Your task to perform on an android device: all mails in gmail Image 0: 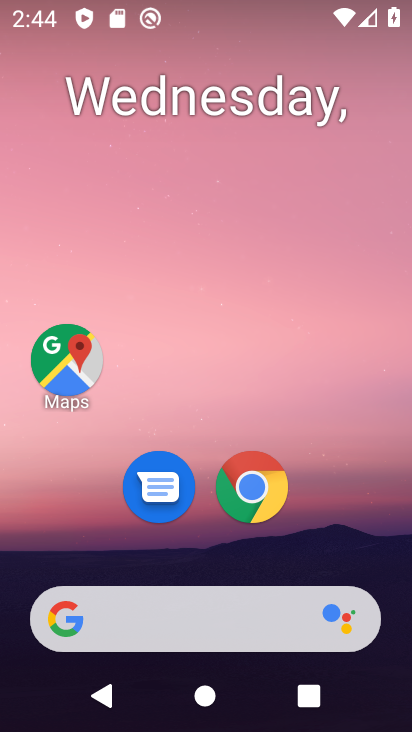
Step 0: drag from (170, 431) to (169, 237)
Your task to perform on an android device: all mails in gmail Image 1: 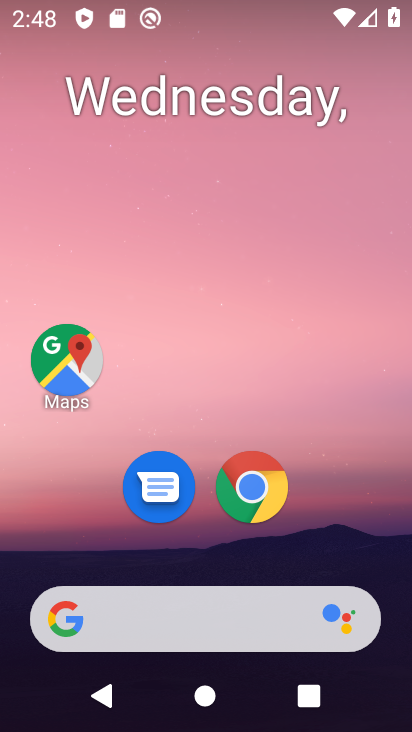
Step 1: drag from (217, 601) to (222, 162)
Your task to perform on an android device: all mails in gmail Image 2: 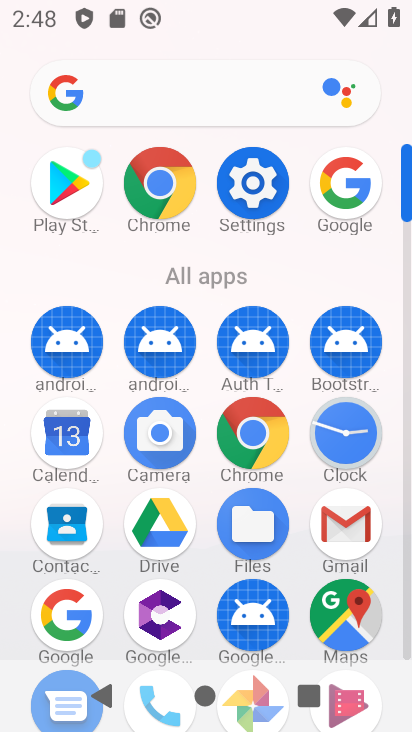
Step 2: drag from (205, 581) to (217, 162)
Your task to perform on an android device: all mails in gmail Image 3: 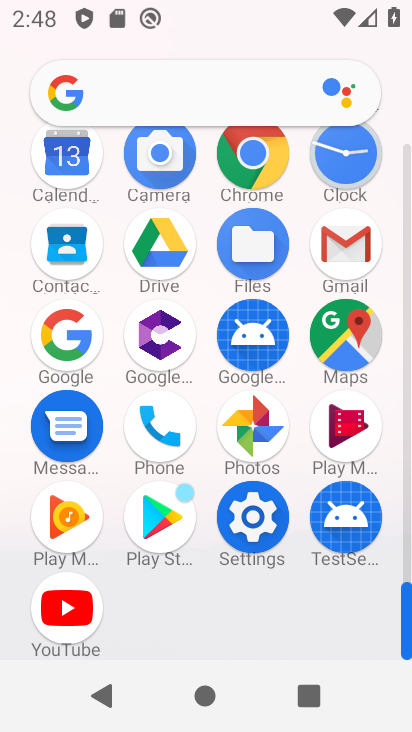
Step 3: click (345, 261)
Your task to perform on an android device: all mails in gmail Image 4: 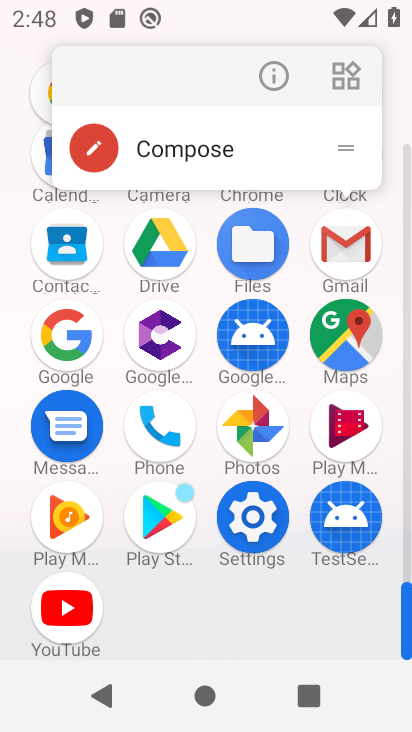
Step 4: click (346, 260)
Your task to perform on an android device: all mails in gmail Image 5: 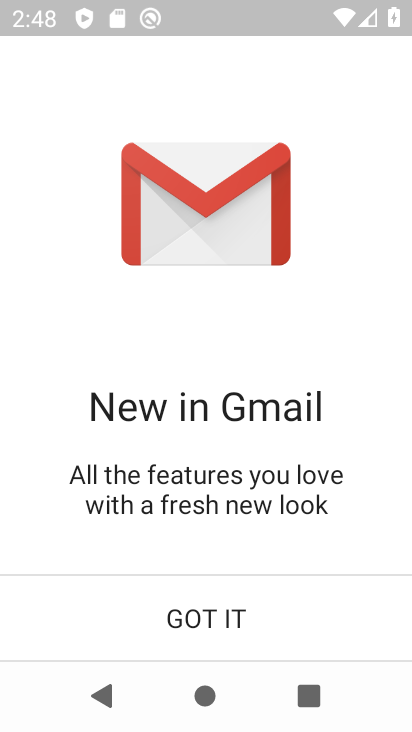
Step 5: click (215, 599)
Your task to perform on an android device: all mails in gmail Image 6: 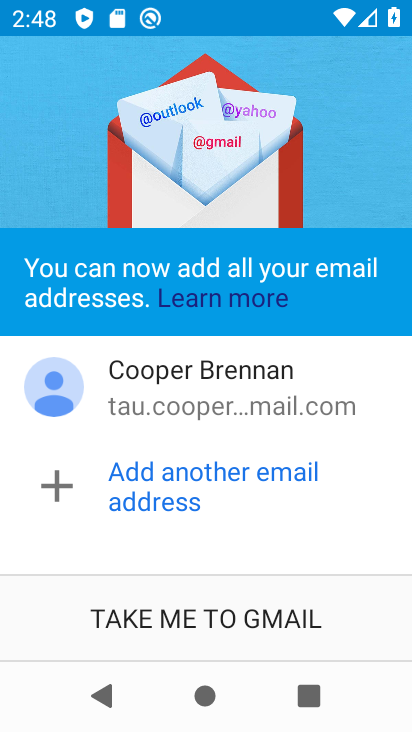
Step 6: click (200, 627)
Your task to perform on an android device: all mails in gmail Image 7: 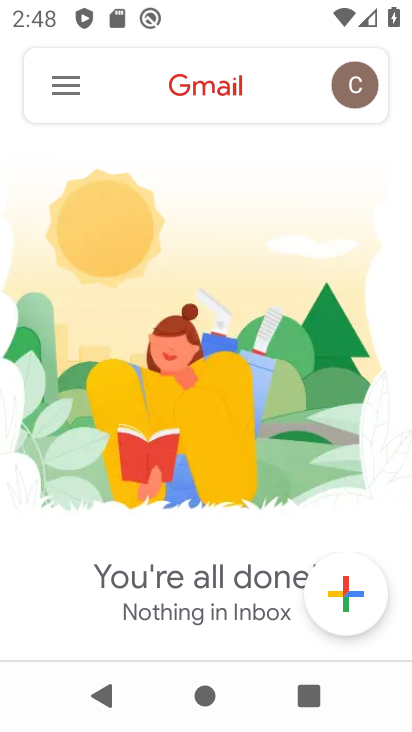
Step 7: click (71, 89)
Your task to perform on an android device: all mails in gmail Image 8: 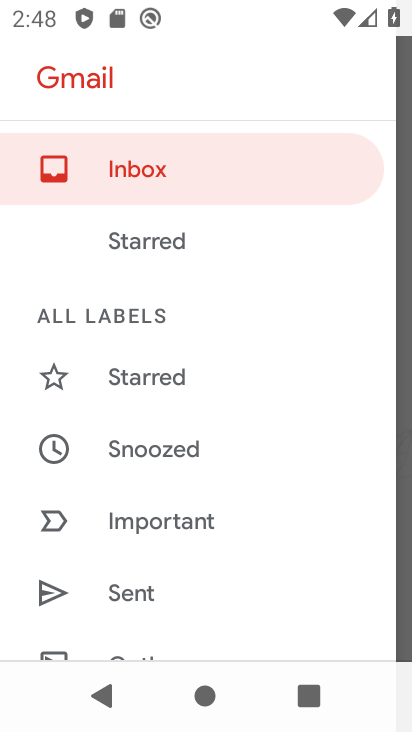
Step 8: drag from (174, 584) to (192, 174)
Your task to perform on an android device: all mails in gmail Image 9: 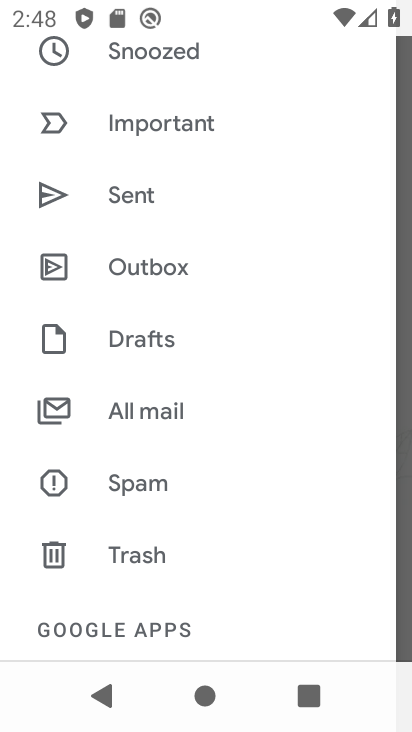
Step 9: click (108, 414)
Your task to perform on an android device: all mails in gmail Image 10: 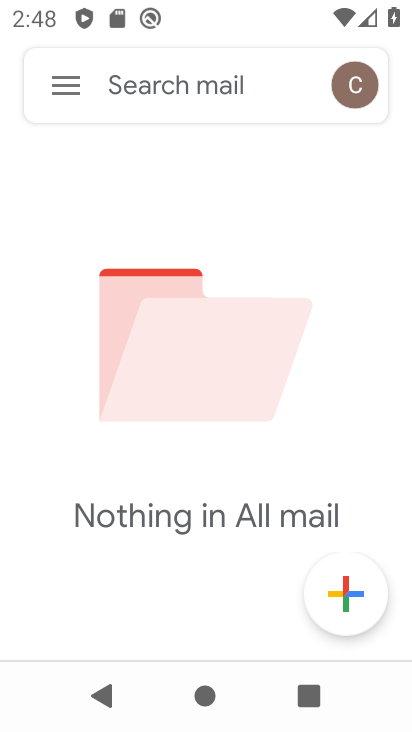
Step 10: task complete